Your task to perform on an android device: snooze an email in the gmail app Image 0: 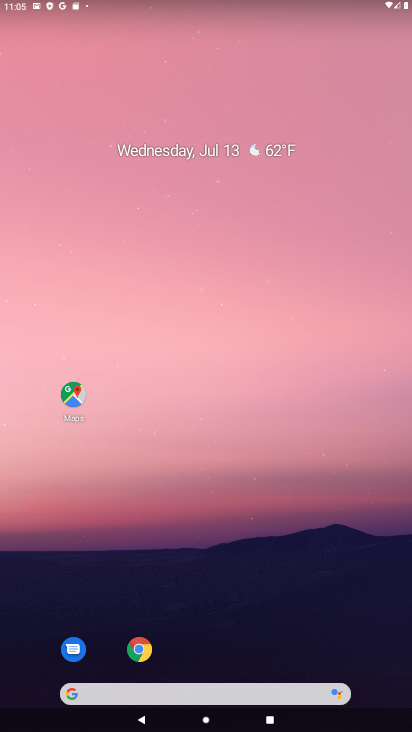
Step 0: click (192, 100)
Your task to perform on an android device: snooze an email in the gmail app Image 1: 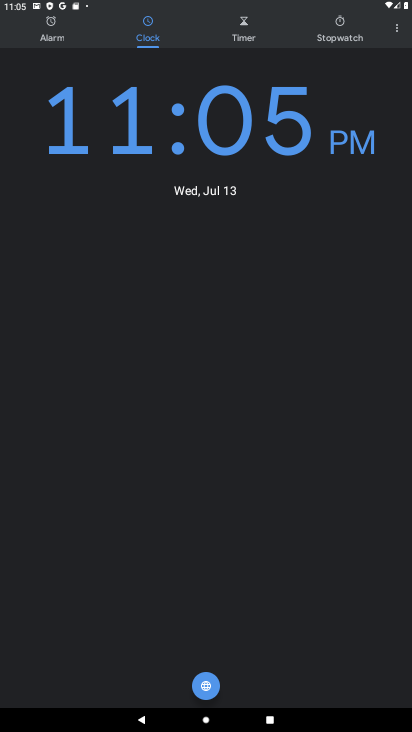
Step 1: press home button
Your task to perform on an android device: snooze an email in the gmail app Image 2: 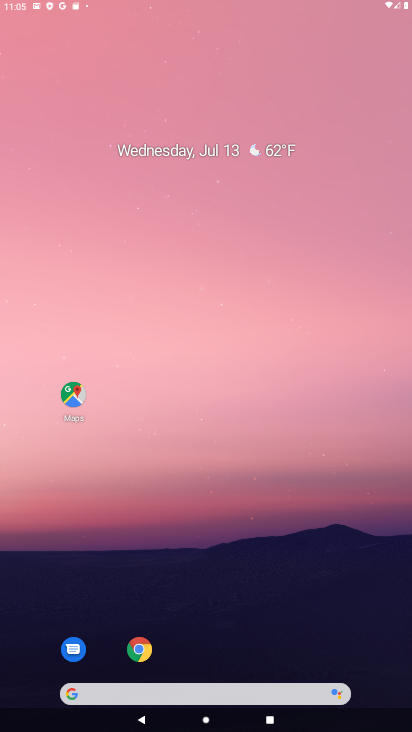
Step 2: drag from (379, 660) to (66, 22)
Your task to perform on an android device: snooze an email in the gmail app Image 3: 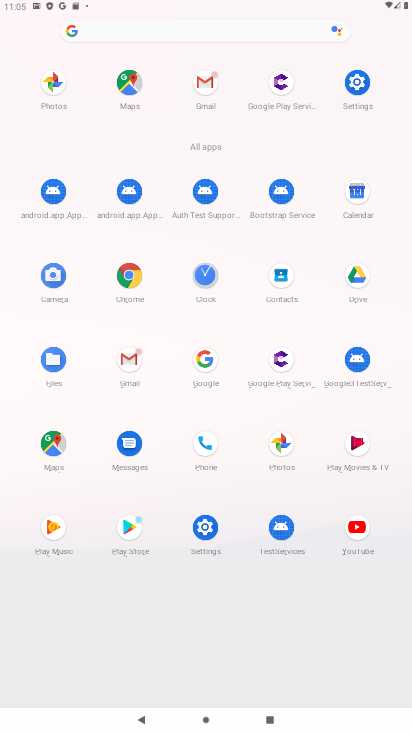
Step 3: click (125, 355)
Your task to perform on an android device: snooze an email in the gmail app Image 4: 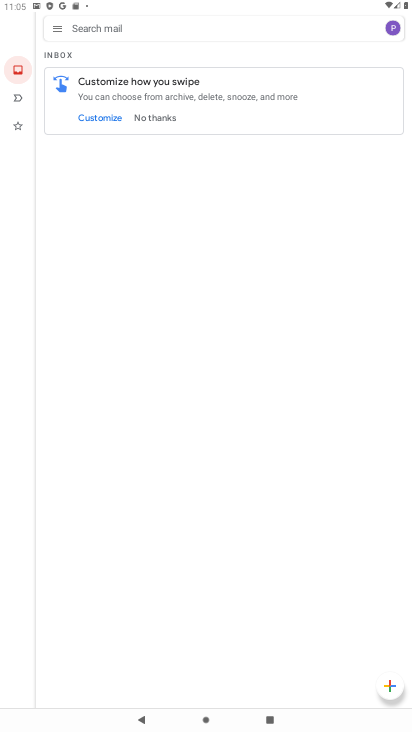
Step 4: task complete